Your task to perform on an android device: clear all cookies in the chrome app Image 0: 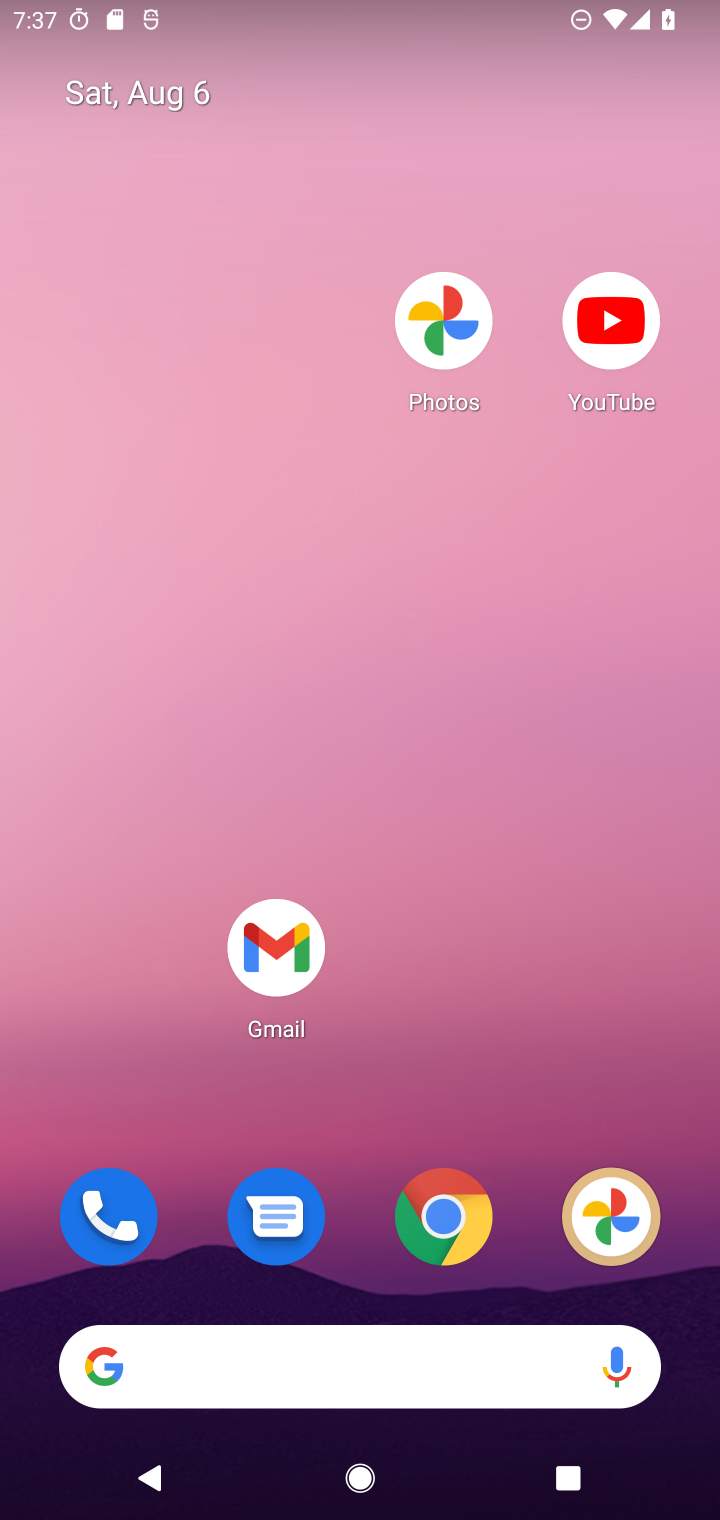
Step 0: drag from (528, 1120) to (611, 393)
Your task to perform on an android device: clear all cookies in the chrome app Image 1: 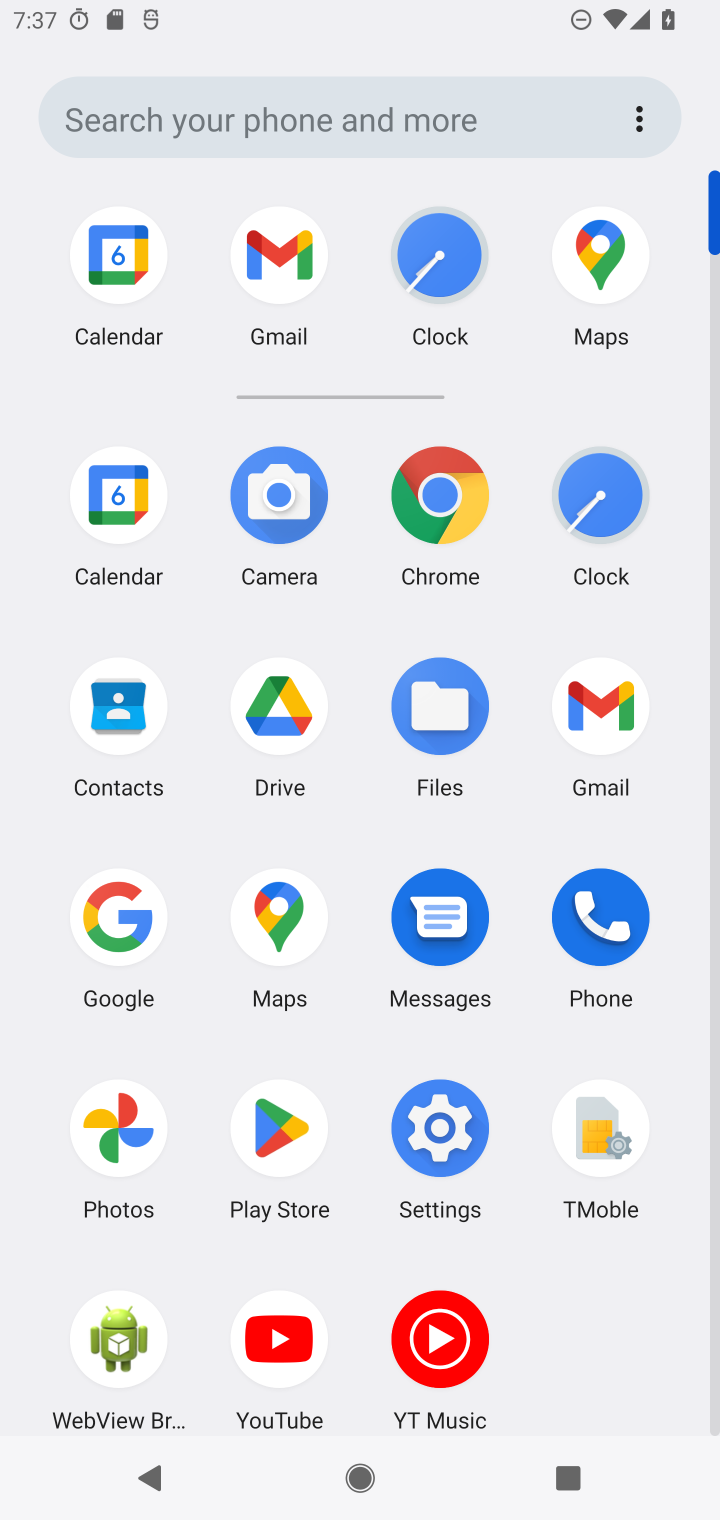
Step 1: click (443, 500)
Your task to perform on an android device: clear all cookies in the chrome app Image 2: 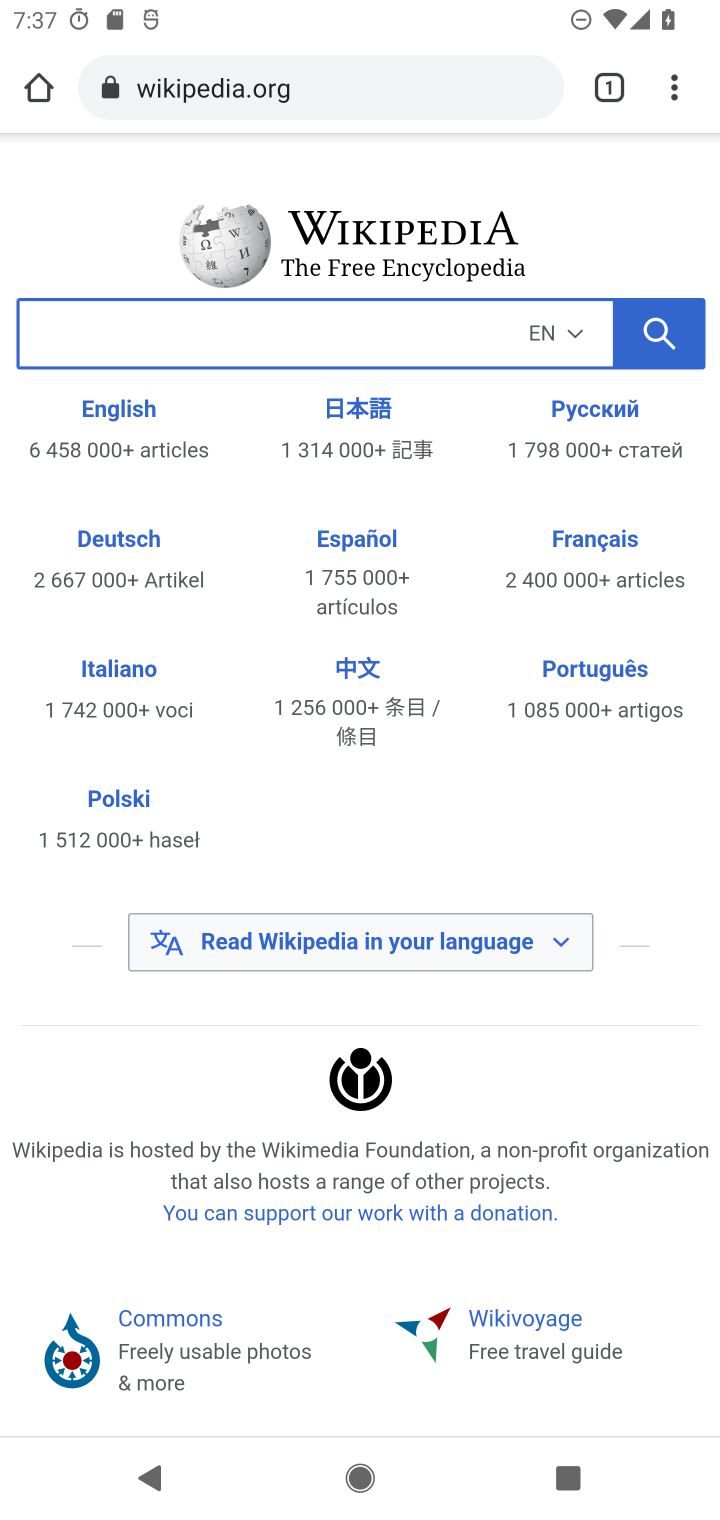
Step 2: drag from (667, 92) to (496, 1185)
Your task to perform on an android device: clear all cookies in the chrome app Image 3: 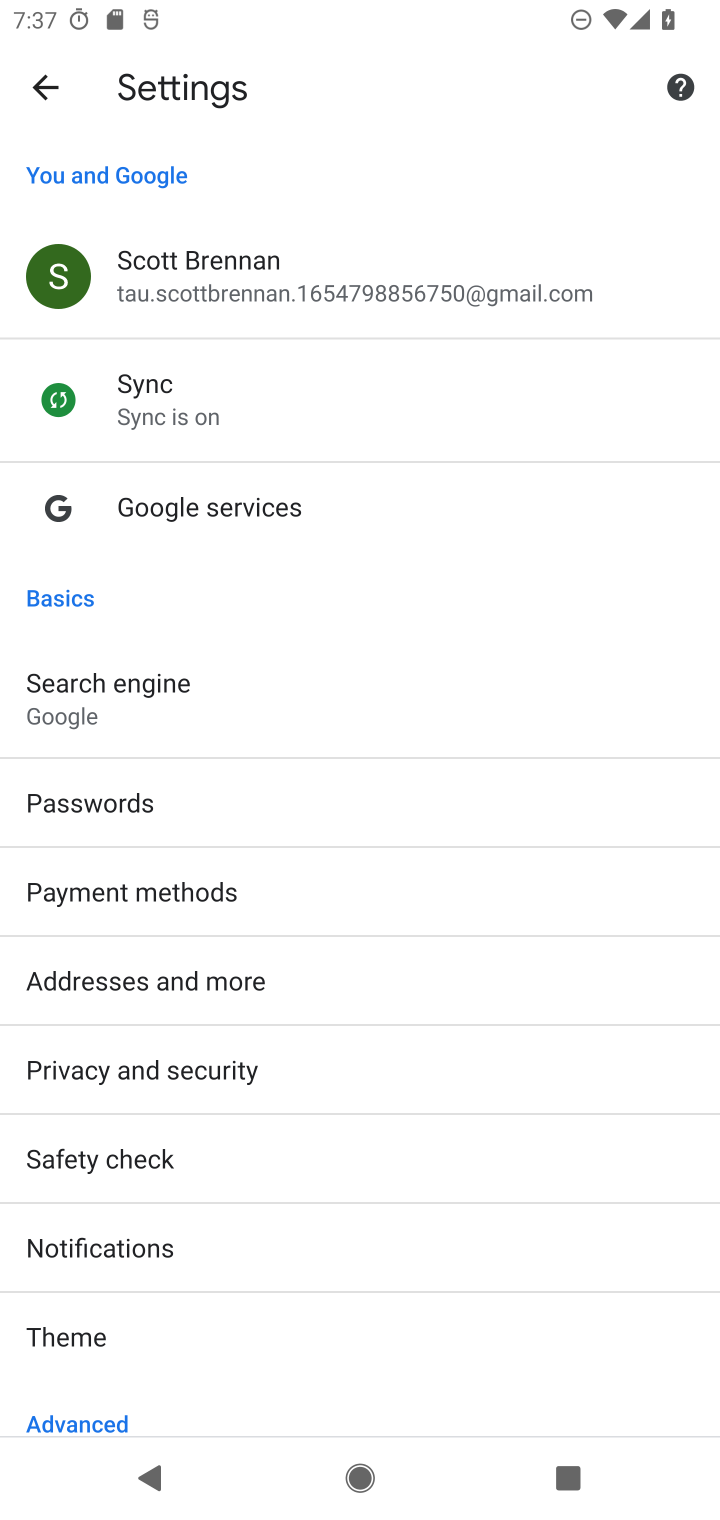
Step 3: drag from (410, 1107) to (511, 380)
Your task to perform on an android device: clear all cookies in the chrome app Image 4: 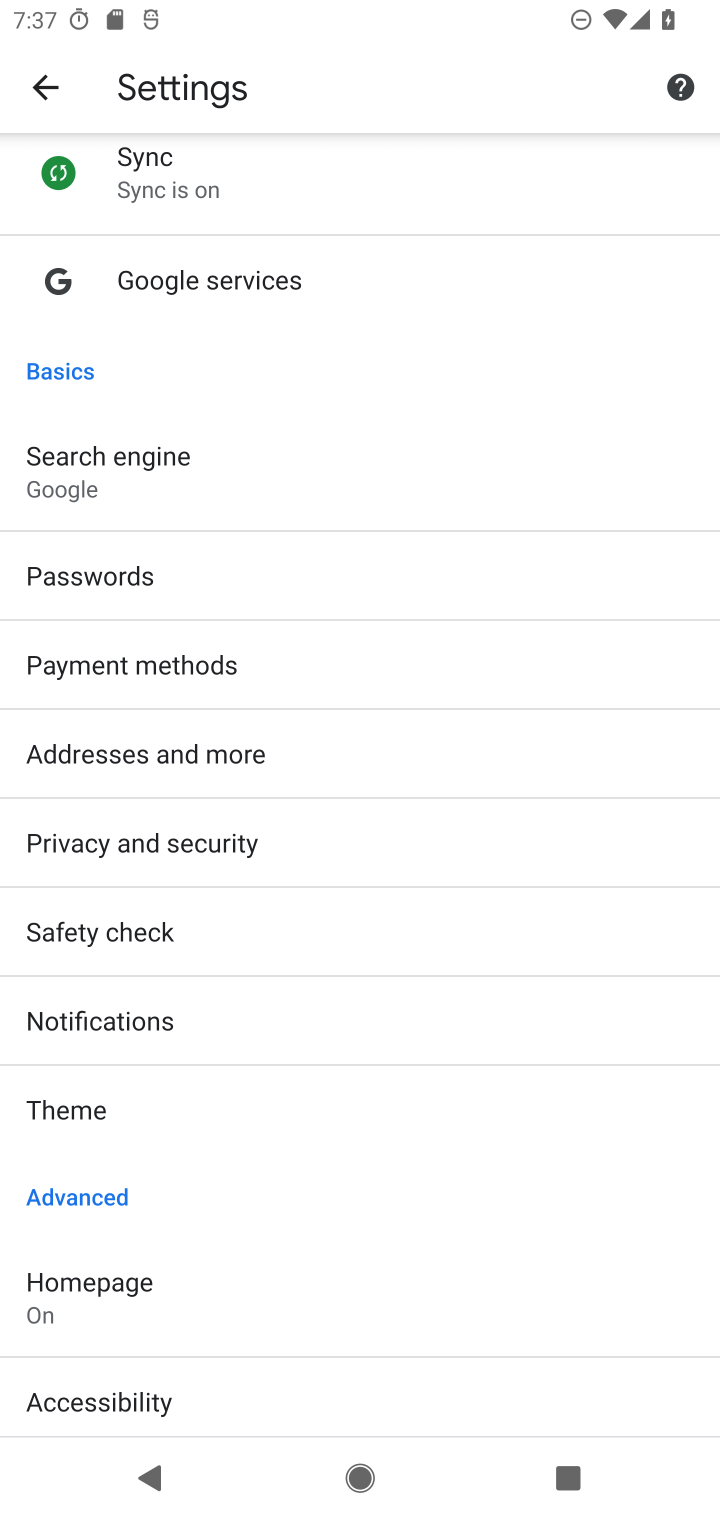
Step 4: drag from (470, 1205) to (471, 442)
Your task to perform on an android device: clear all cookies in the chrome app Image 5: 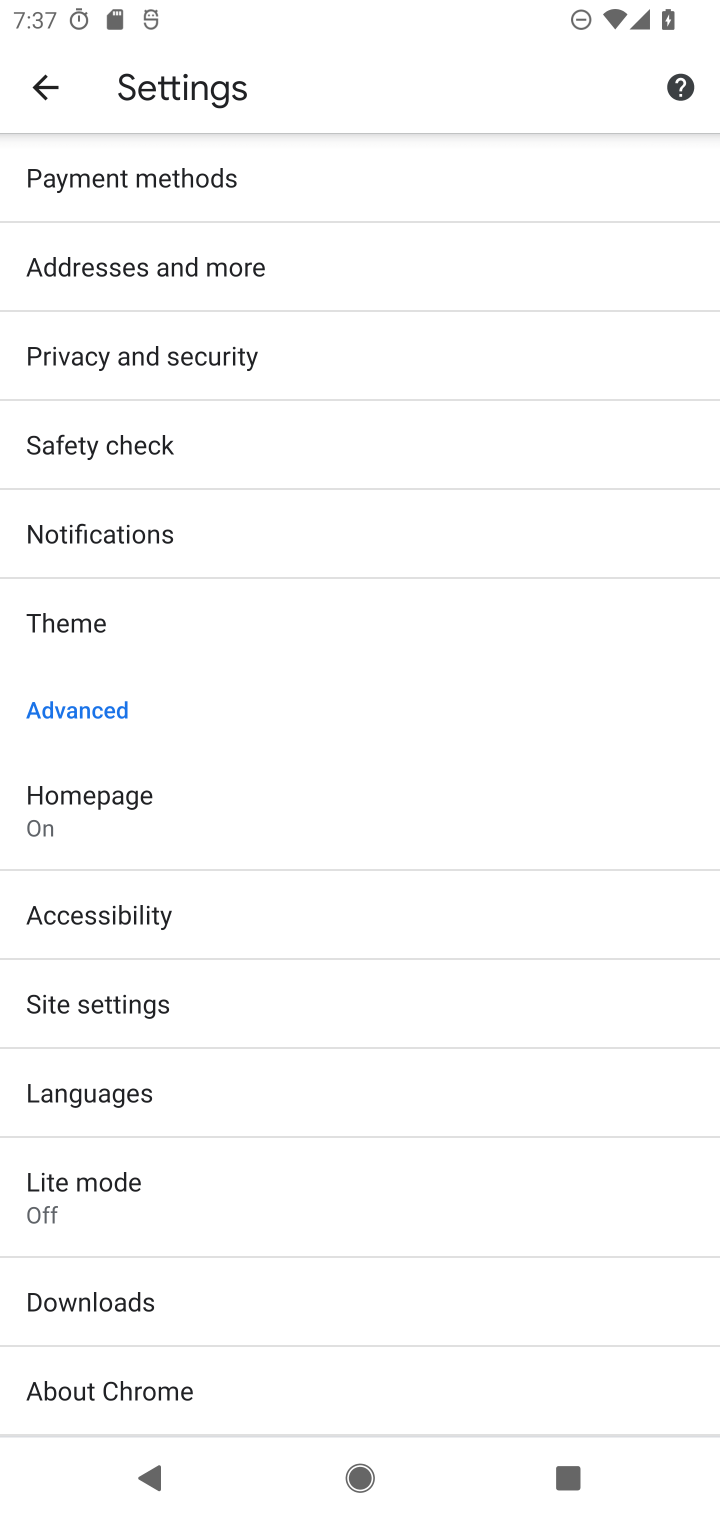
Step 5: click (143, 1023)
Your task to perform on an android device: clear all cookies in the chrome app Image 6: 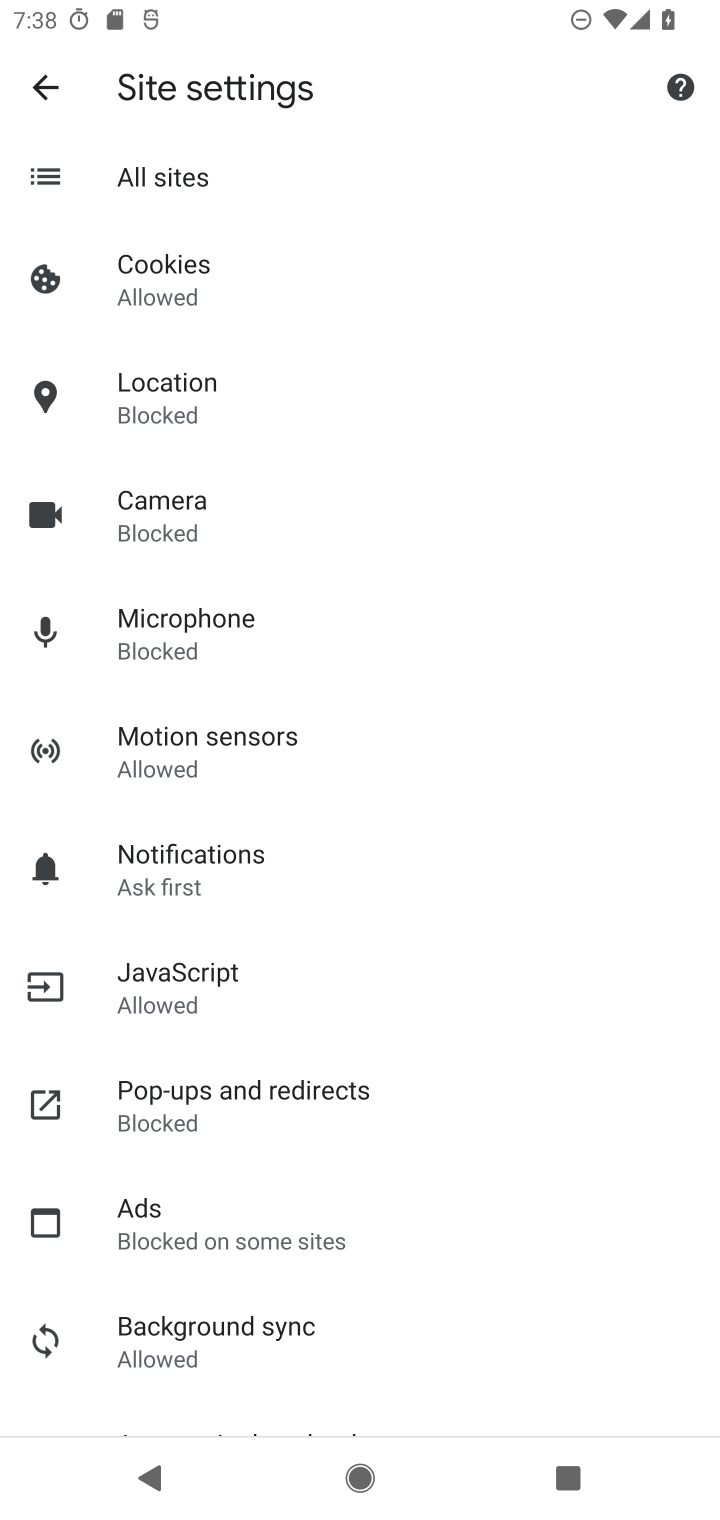
Step 6: click (163, 309)
Your task to perform on an android device: clear all cookies in the chrome app Image 7: 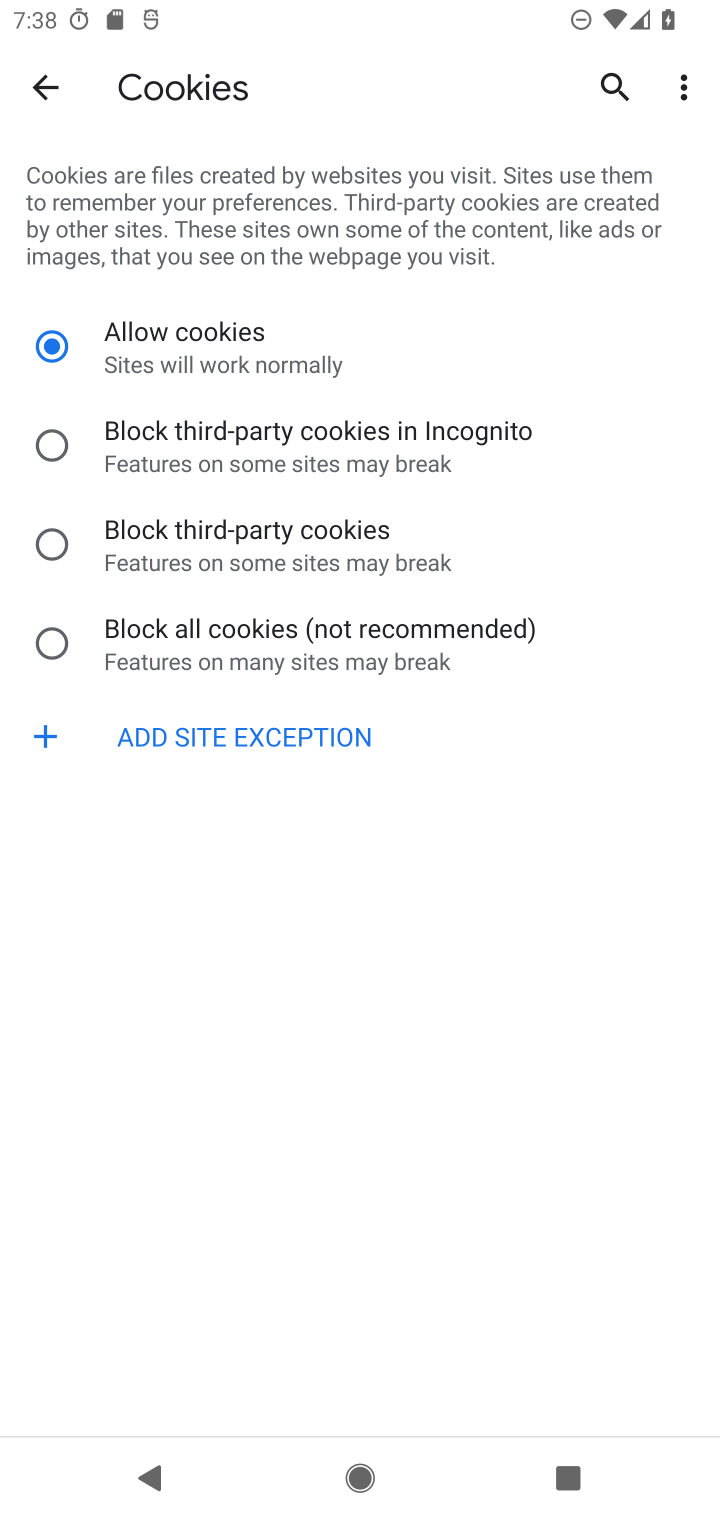
Step 7: task complete